Your task to perform on an android device: Open the web browser Image 0: 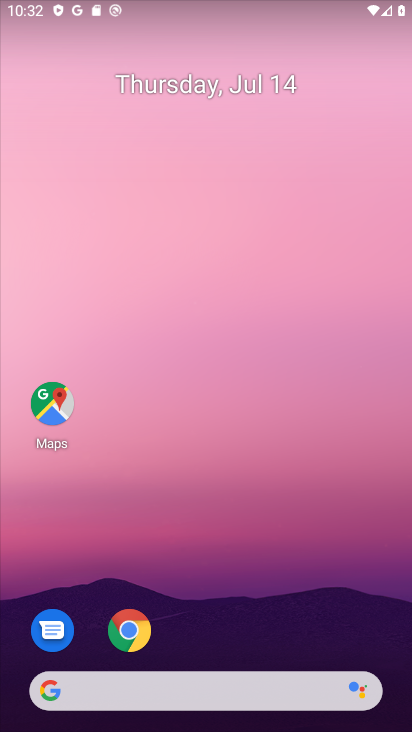
Step 0: drag from (186, 625) to (380, 210)
Your task to perform on an android device: Open the web browser Image 1: 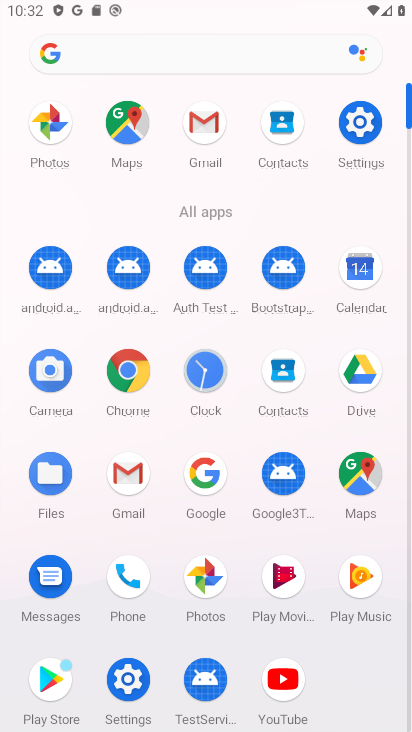
Step 1: click (201, 466)
Your task to perform on an android device: Open the web browser Image 2: 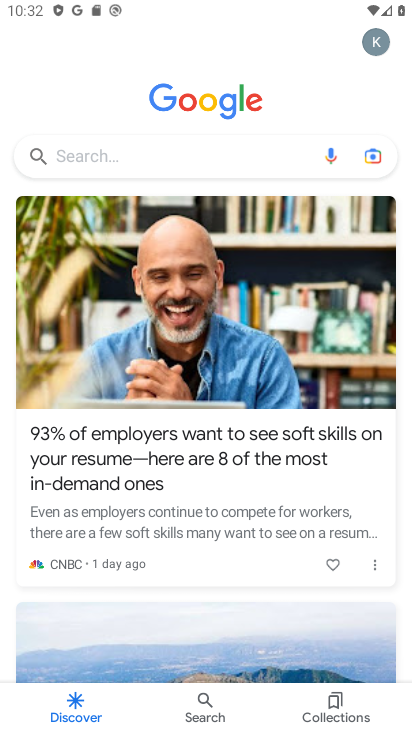
Step 2: task complete